Your task to perform on an android device: turn on translation in the chrome app Image 0: 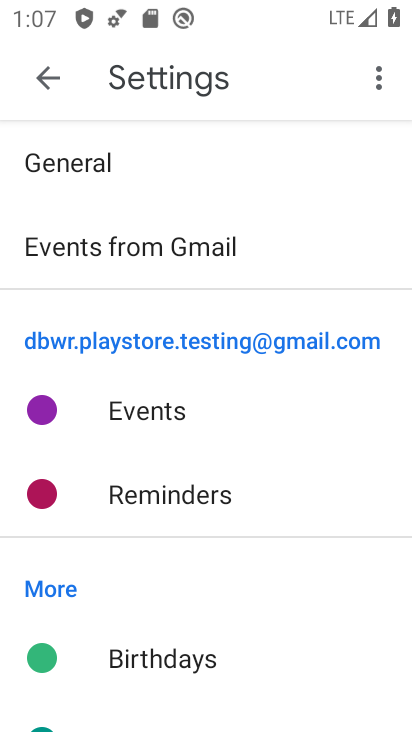
Step 0: press home button
Your task to perform on an android device: turn on translation in the chrome app Image 1: 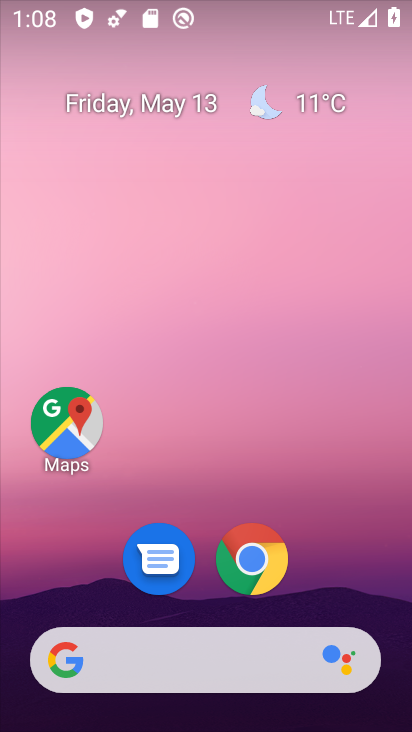
Step 1: click (241, 558)
Your task to perform on an android device: turn on translation in the chrome app Image 2: 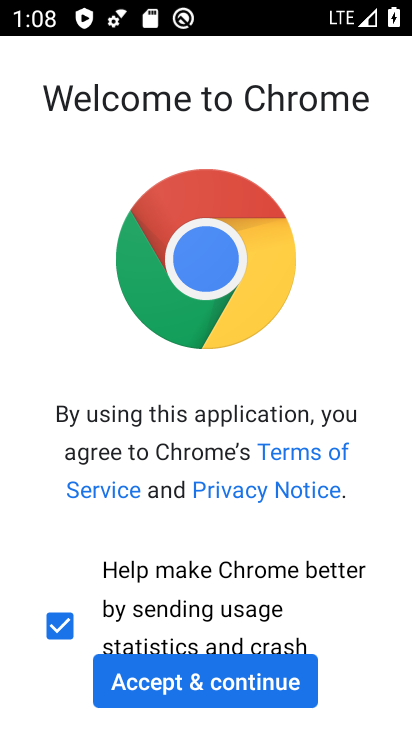
Step 2: click (230, 698)
Your task to perform on an android device: turn on translation in the chrome app Image 3: 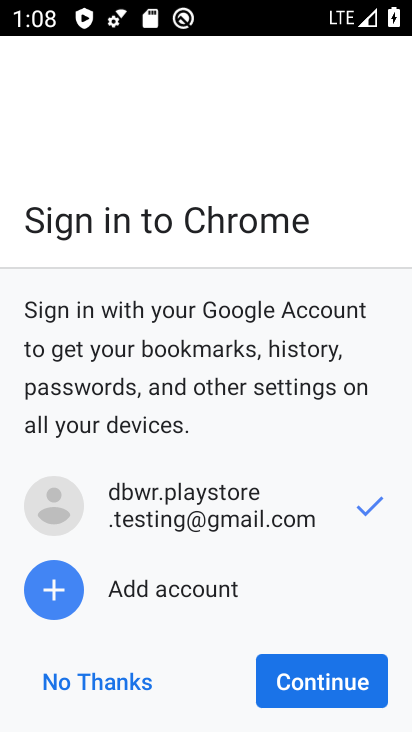
Step 3: click (294, 694)
Your task to perform on an android device: turn on translation in the chrome app Image 4: 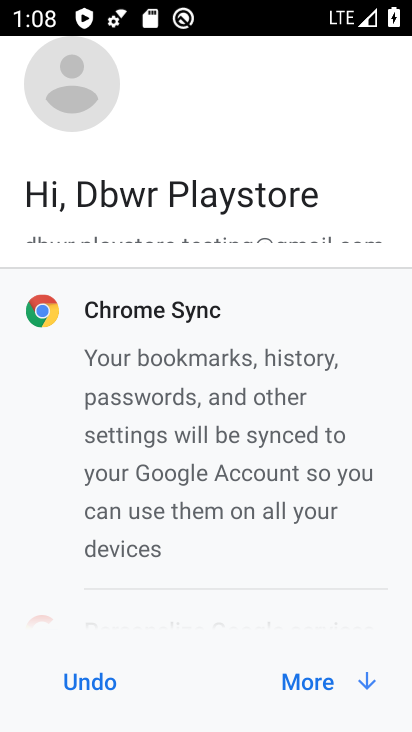
Step 4: click (313, 684)
Your task to perform on an android device: turn on translation in the chrome app Image 5: 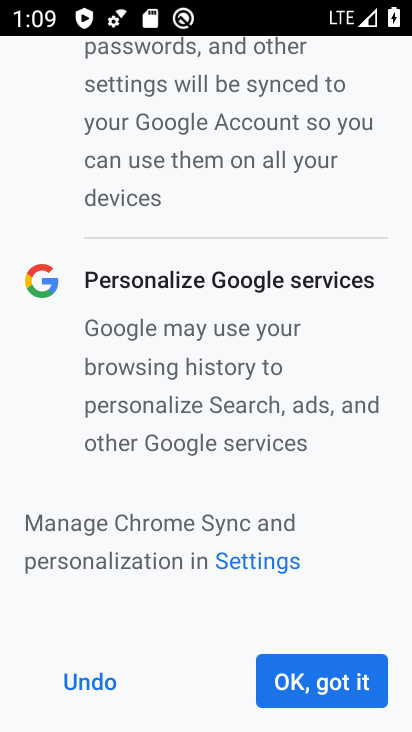
Step 5: click (308, 695)
Your task to perform on an android device: turn on translation in the chrome app Image 6: 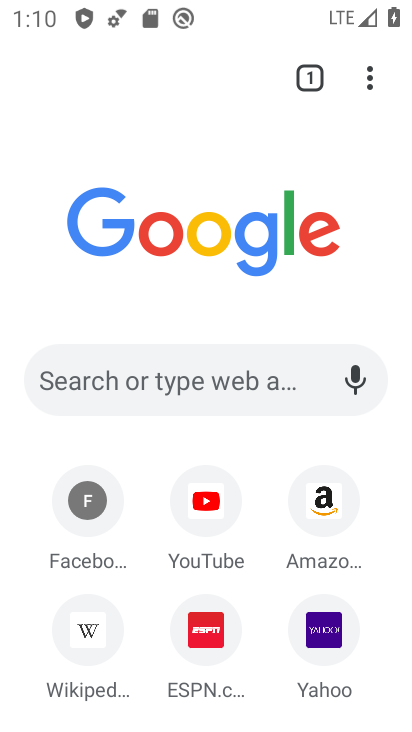
Step 6: click (369, 71)
Your task to perform on an android device: turn on translation in the chrome app Image 7: 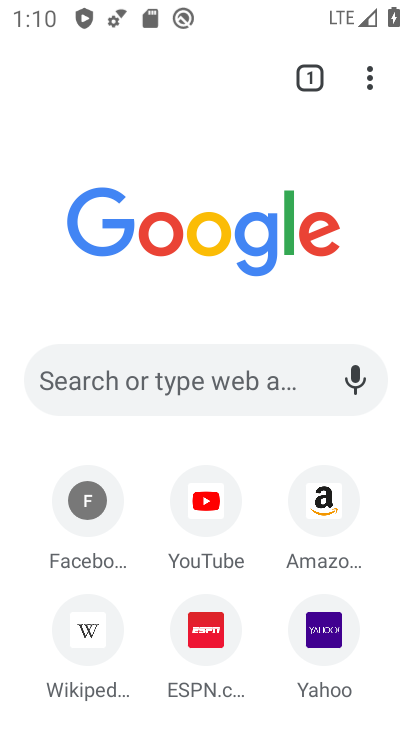
Step 7: click (367, 73)
Your task to perform on an android device: turn on translation in the chrome app Image 8: 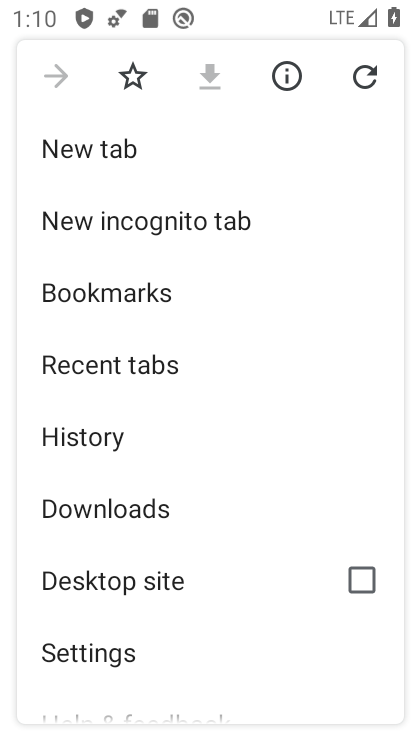
Step 8: click (258, 367)
Your task to perform on an android device: turn on translation in the chrome app Image 9: 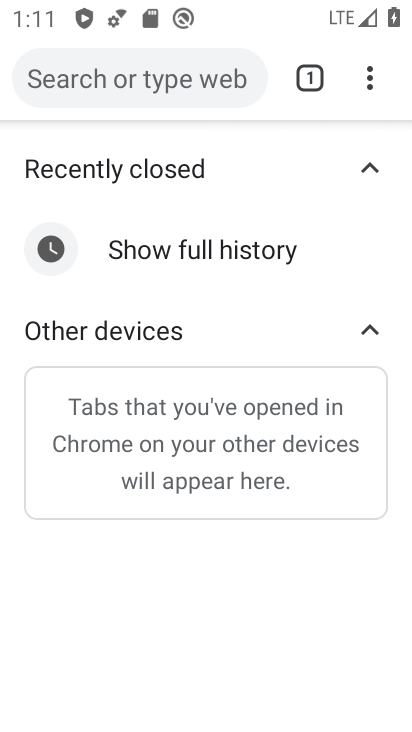
Step 9: press back button
Your task to perform on an android device: turn on translation in the chrome app Image 10: 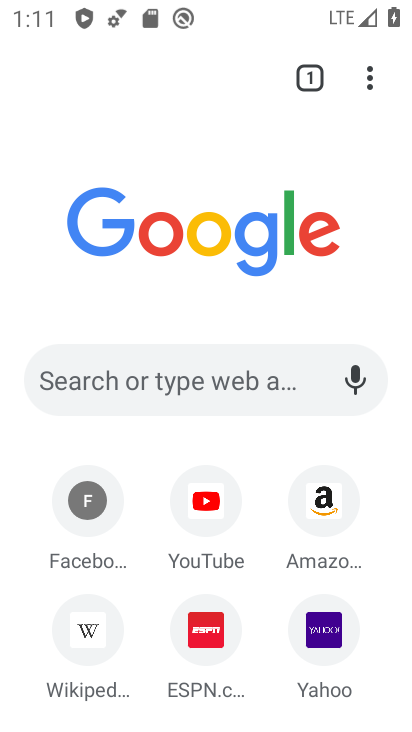
Step 10: click (366, 78)
Your task to perform on an android device: turn on translation in the chrome app Image 11: 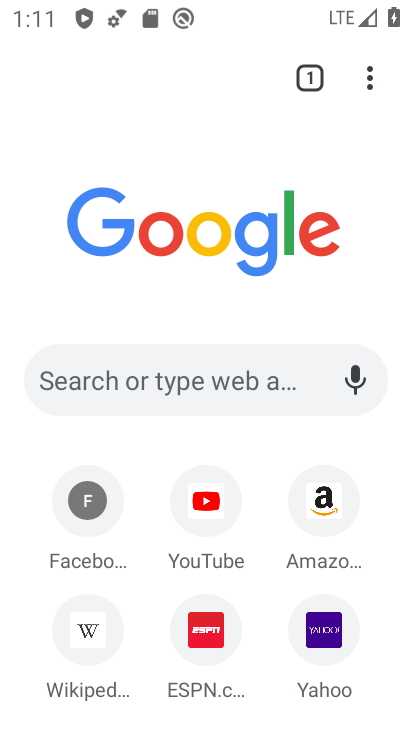
Step 11: click (371, 73)
Your task to perform on an android device: turn on translation in the chrome app Image 12: 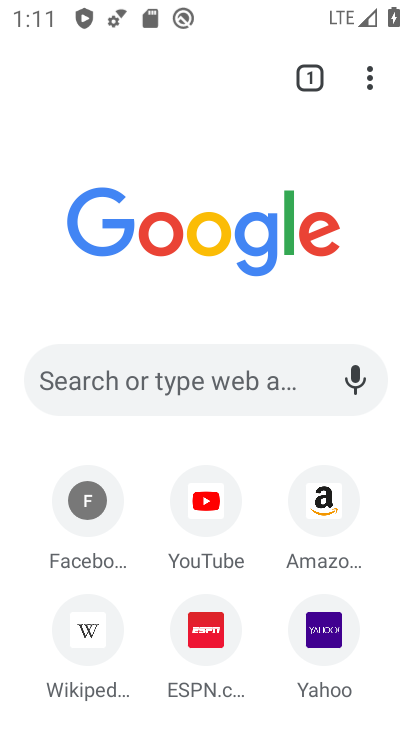
Step 12: click (371, 73)
Your task to perform on an android device: turn on translation in the chrome app Image 13: 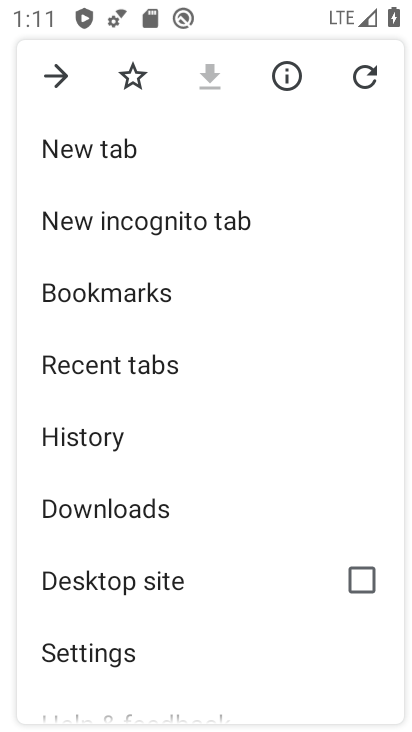
Step 13: click (112, 660)
Your task to perform on an android device: turn on translation in the chrome app Image 14: 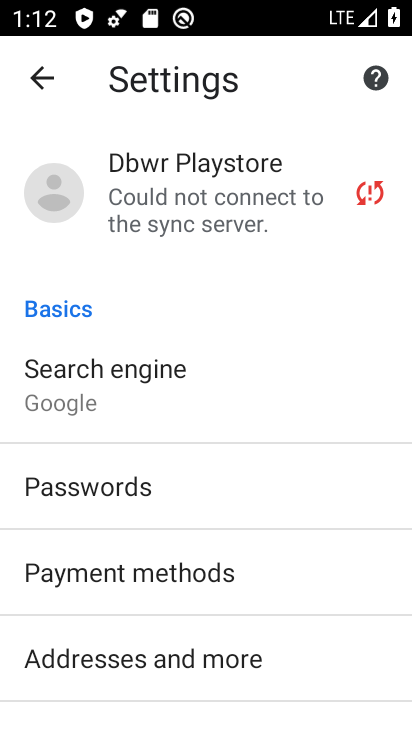
Step 14: click (289, 318)
Your task to perform on an android device: turn on translation in the chrome app Image 15: 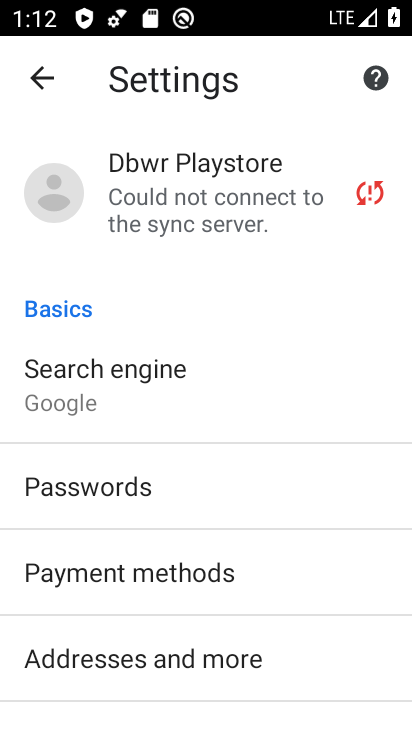
Step 15: drag from (309, 654) to (306, 342)
Your task to perform on an android device: turn on translation in the chrome app Image 16: 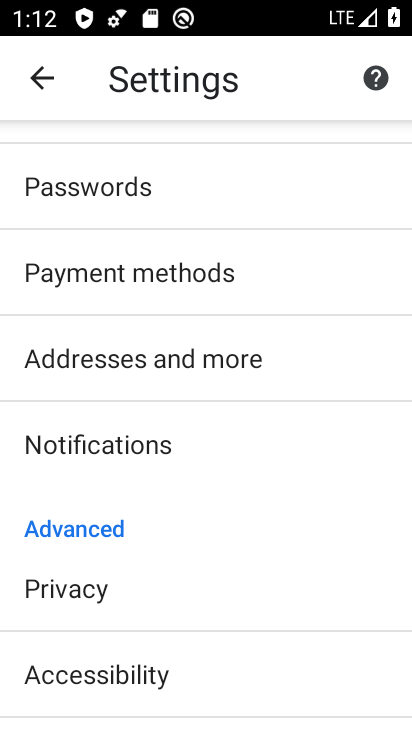
Step 16: drag from (327, 449) to (331, 322)
Your task to perform on an android device: turn on translation in the chrome app Image 17: 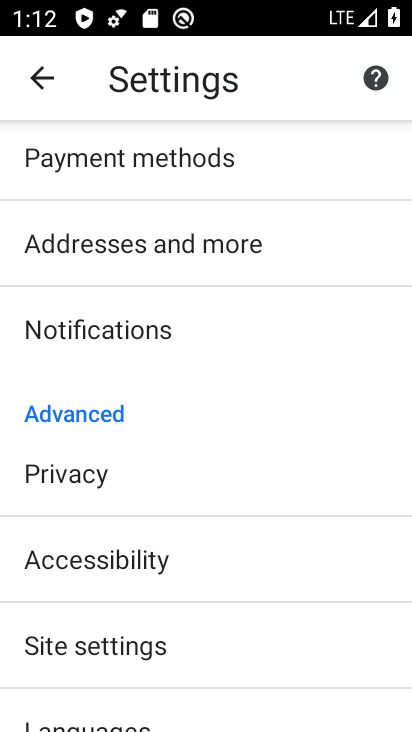
Step 17: click (360, 305)
Your task to perform on an android device: turn on translation in the chrome app Image 18: 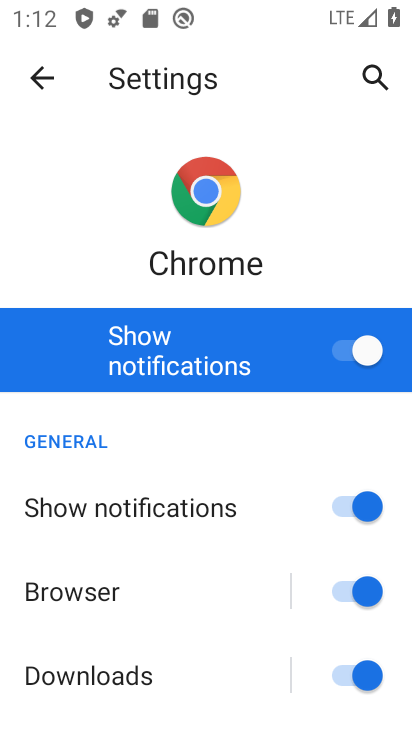
Step 18: task complete